Your task to perform on an android device: turn off smart reply in the gmail app Image 0: 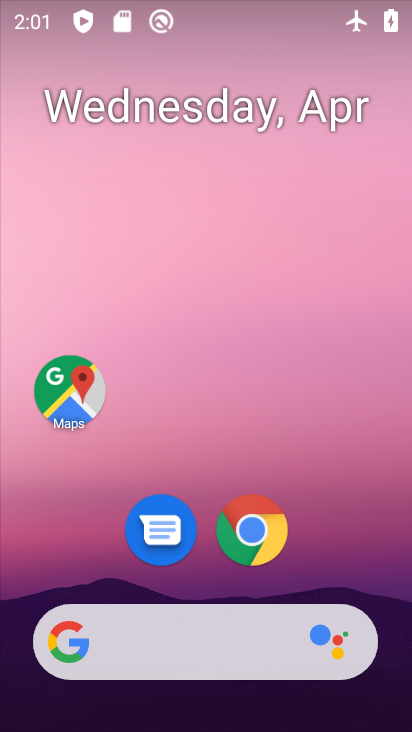
Step 0: drag from (322, 507) to (290, 78)
Your task to perform on an android device: turn off smart reply in the gmail app Image 1: 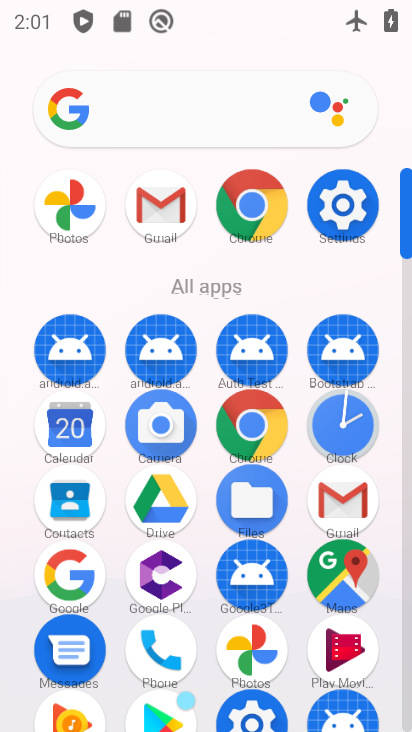
Step 1: click (334, 500)
Your task to perform on an android device: turn off smart reply in the gmail app Image 2: 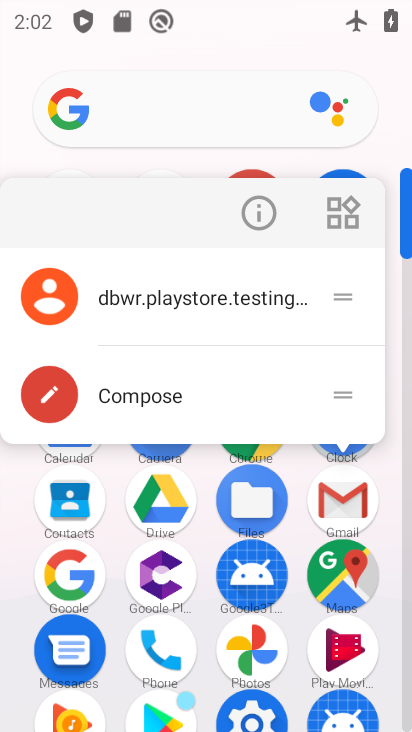
Step 2: click (336, 499)
Your task to perform on an android device: turn off smart reply in the gmail app Image 3: 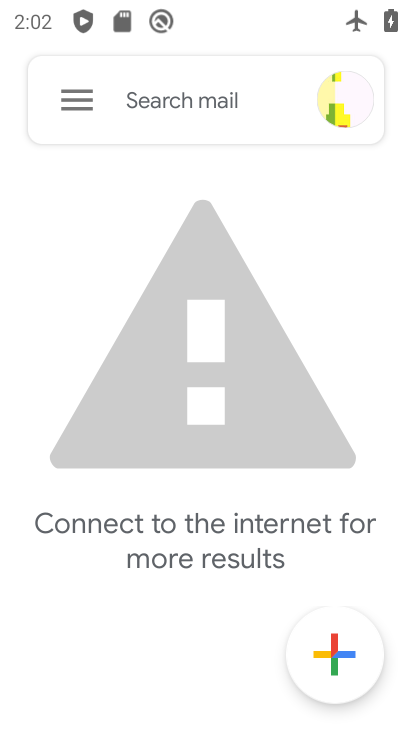
Step 3: click (80, 101)
Your task to perform on an android device: turn off smart reply in the gmail app Image 4: 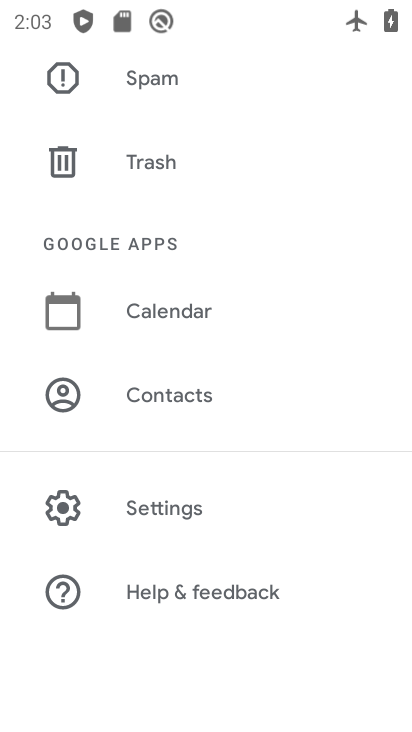
Step 4: click (165, 503)
Your task to perform on an android device: turn off smart reply in the gmail app Image 5: 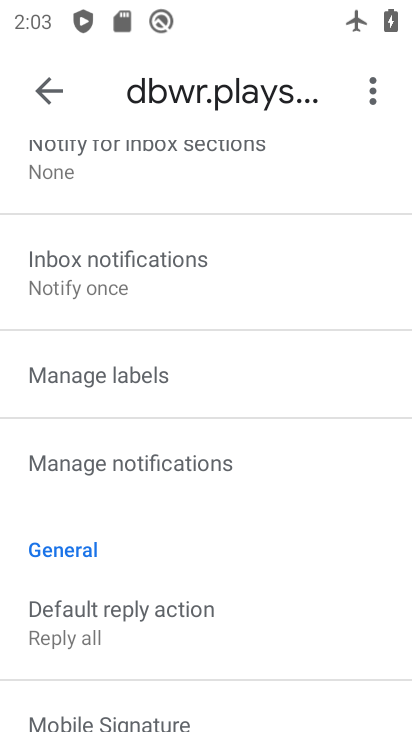
Step 5: drag from (167, 547) to (208, 134)
Your task to perform on an android device: turn off smart reply in the gmail app Image 6: 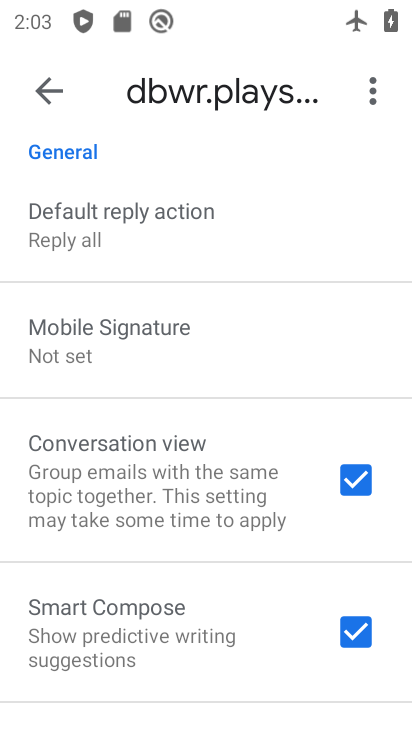
Step 6: drag from (173, 481) to (255, 166)
Your task to perform on an android device: turn off smart reply in the gmail app Image 7: 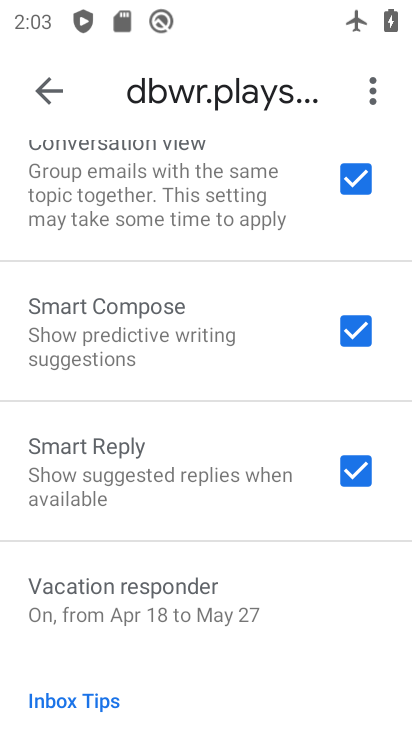
Step 7: click (358, 465)
Your task to perform on an android device: turn off smart reply in the gmail app Image 8: 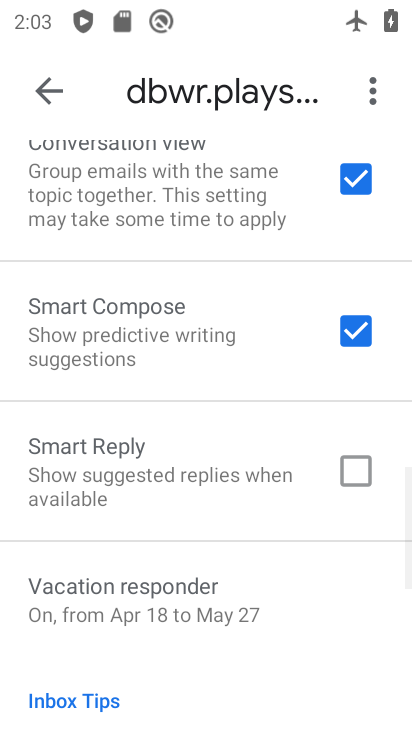
Step 8: task complete